Your task to perform on an android device: open wifi settings Image 0: 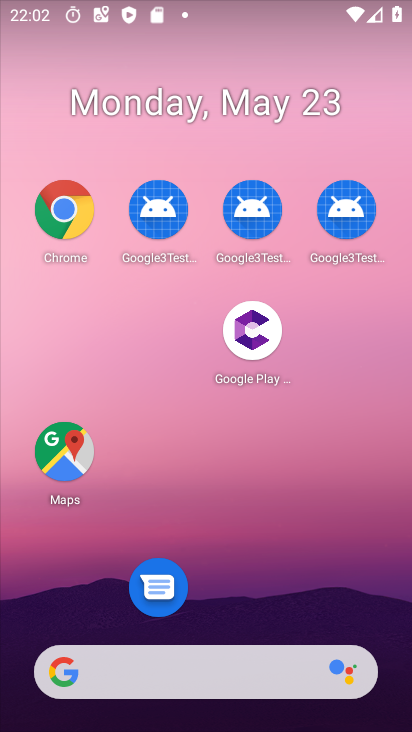
Step 0: drag from (309, 592) to (303, 79)
Your task to perform on an android device: open wifi settings Image 1: 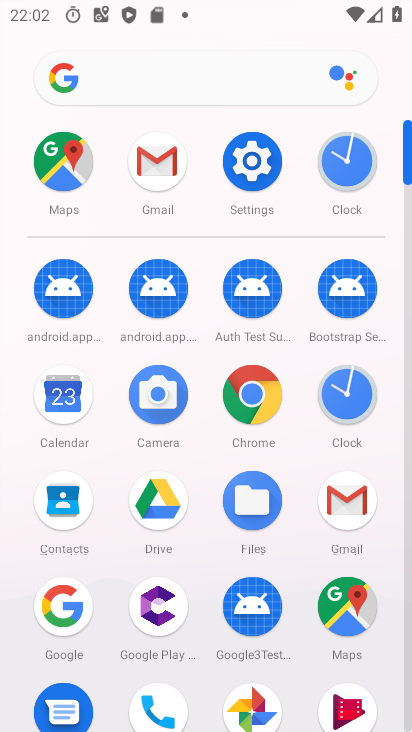
Step 1: click (256, 156)
Your task to perform on an android device: open wifi settings Image 2: 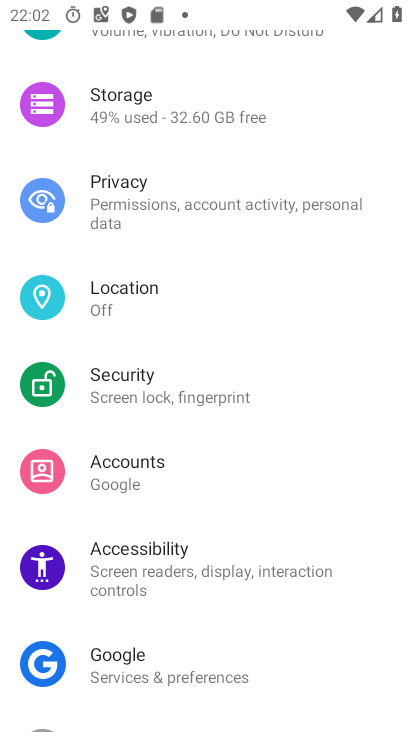
Step 2: drag from (318, 172) to (337, 539)
Your task to perform on an android device: open wifi settings Image 3: 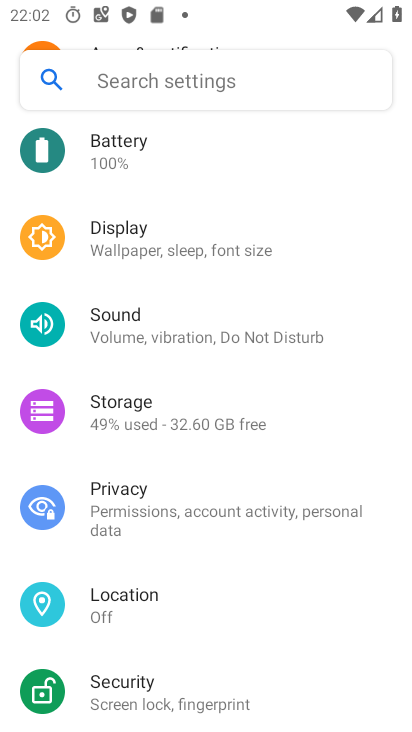
Step 3: drag from (276, 177) to (263, 569)
Your task to perform on an android device: open wifi settings Image 4: 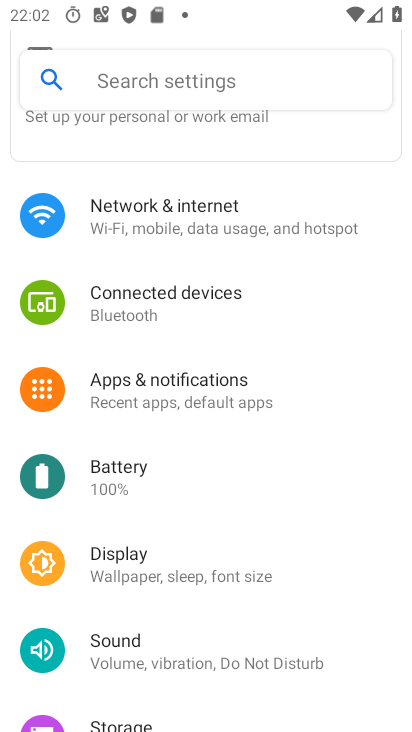
Step 4: click (168, 207)
Your task to perform on an android device: open wifi settings Image 5: 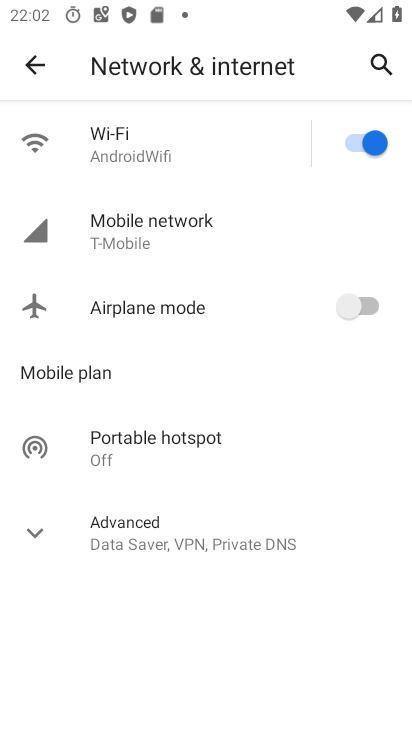
Step 5: click (148, 153)
Your task to perform on an android device: open wifi settings Image 6: 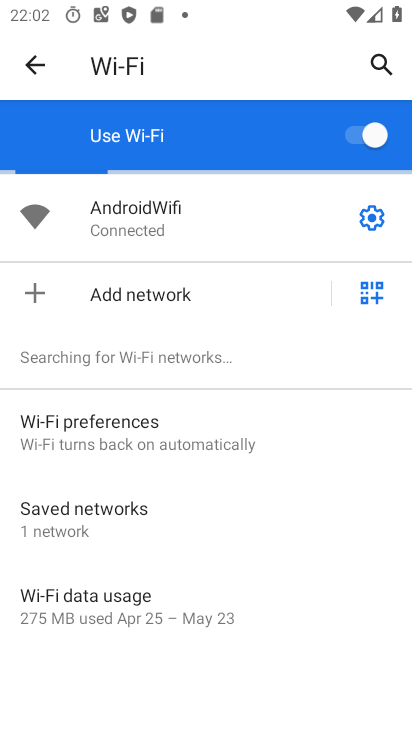
Step 6: task complete